Your task to perform on an android device: turn notification dots off Image 0: 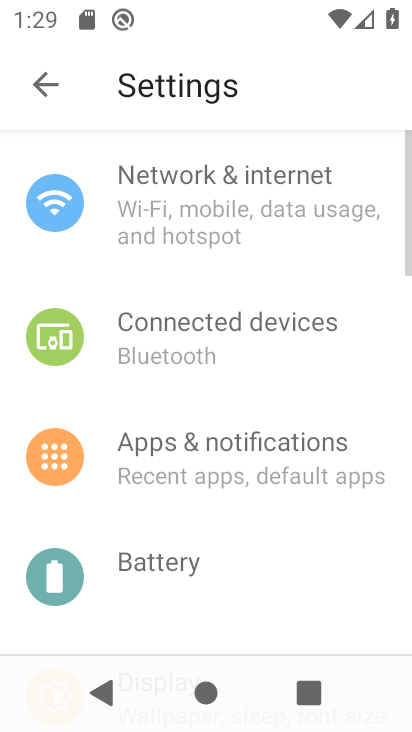
Step 0: press home button
Your task to perform on an android device: turn notification dots off Image 1: 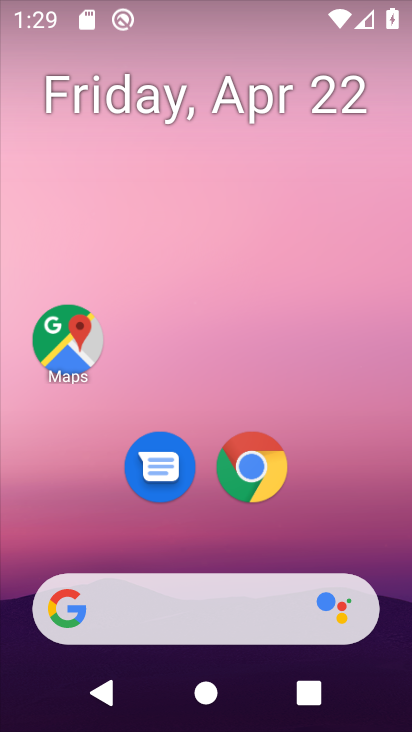
Step 1: drag from (341, 455) to (312, 173)
Your task to perform on an android device: turn notification dots off Image 2: 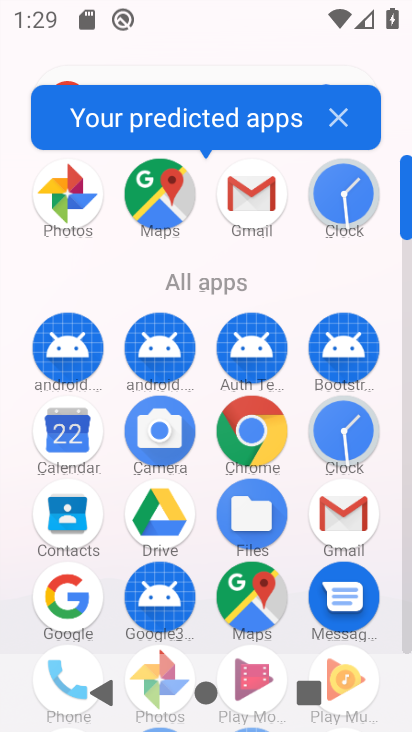
Step 2: drag from (308, 536) to (293, 214)
Your task to perform on an android device: turn notification dots off Image 3: 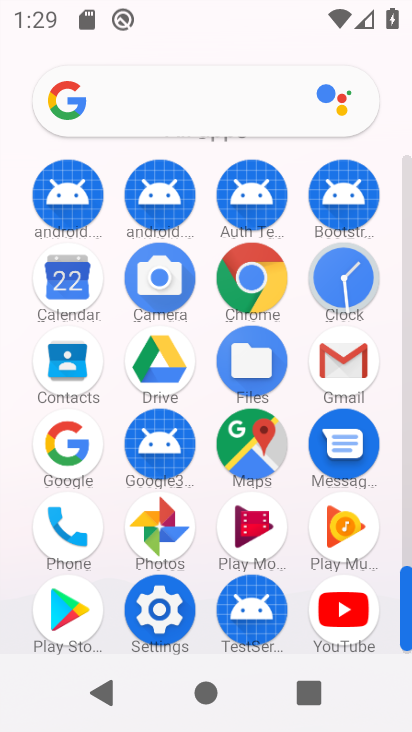
Step 3: click (171, 610)
Your task to perform on an android device: turn notification dots off Image 4: 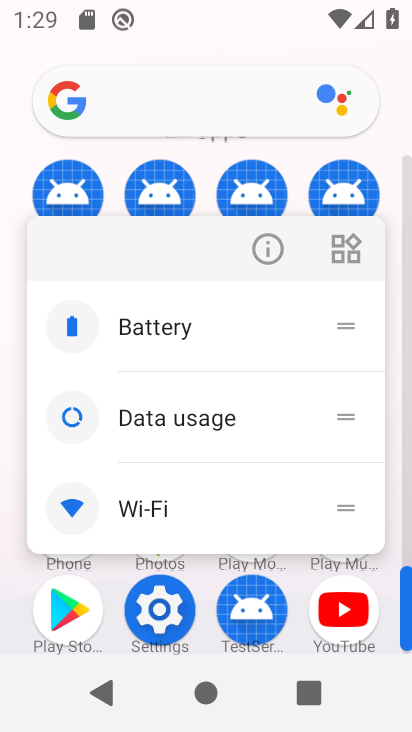
Step 4: click (169, 624)
Your task to perform on an android device: turn notification dots off Image 5: 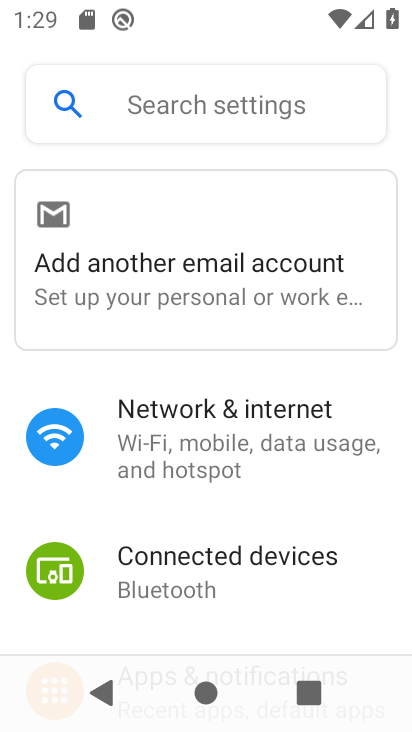
Step 5: drag from (253, 590) to (251, 294)
Your task to perform on an android device: turn notification dots off Image 6: 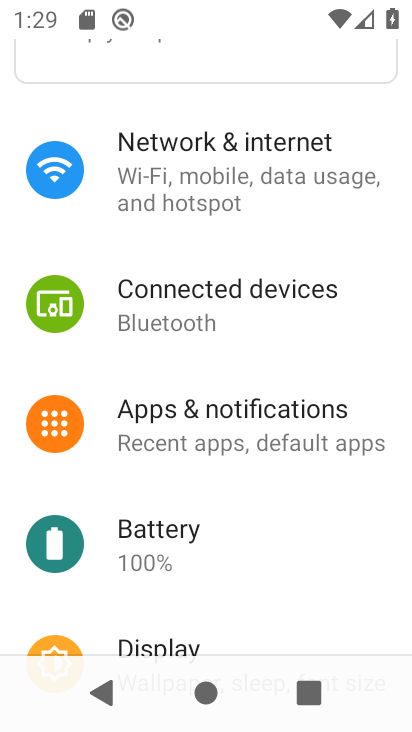
Step 6: click (267, 442)
Your task to perform on an android device: turn notification dots off Image 7: 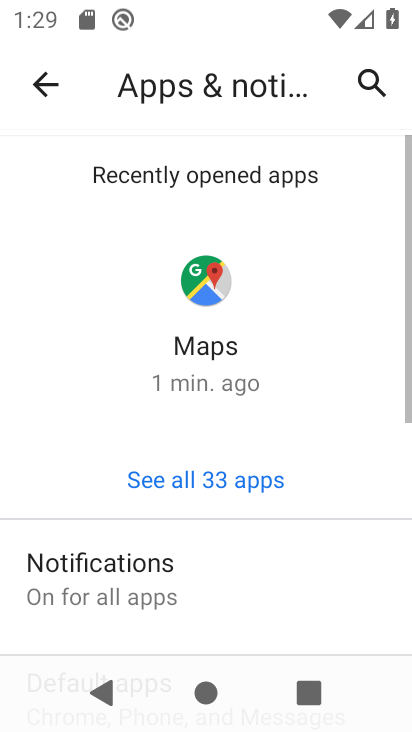
Step 7: drag from (259, 605) to (261, 328)
Your task to perform on an android device: turn notification dots off Image 8: 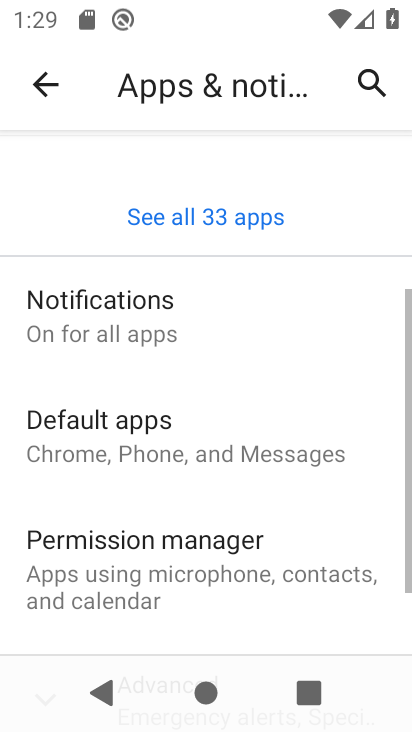
Step 8: drag from (266, 600) to (260, 338)
Your task to perform on an android device: turn notification dots off Image 9: 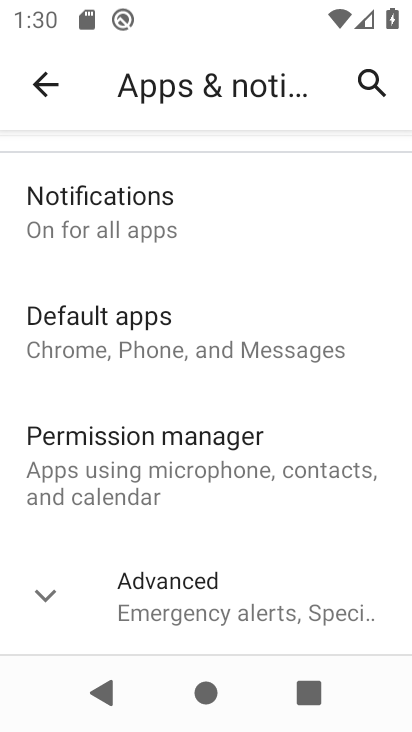
Step 9: click (157, 238)
Your task to perform on an android device: turn notification dots off Image 10: 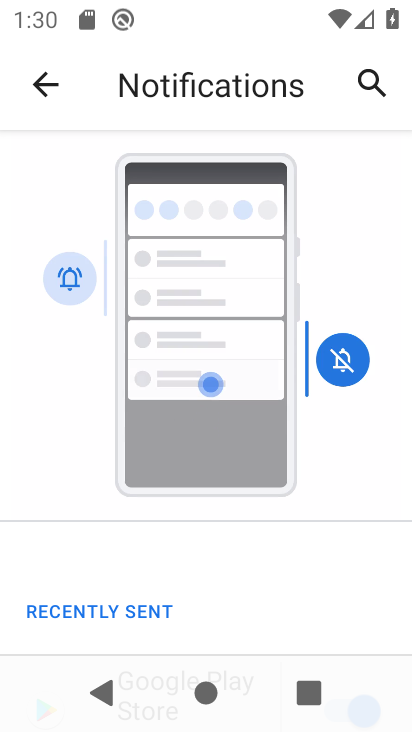
Step 10: drag from (226, 582) to (214, 202)
Your task to perform on an android device: turn notification dots off Image 11: 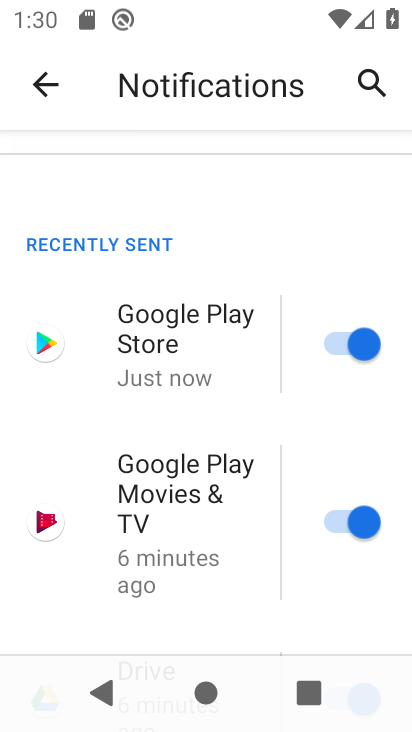
Step 11: drag from (225, 608) to (221, 338)
Your task to perform on an android device: turn notification dots off Image 12: 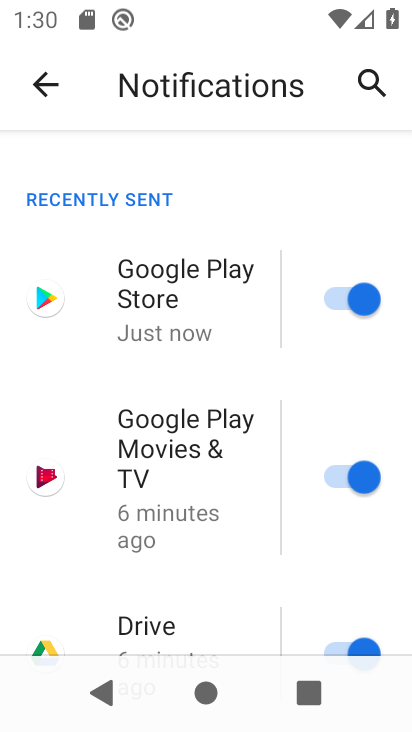
Step 12: drag from (194, 599) to (193, 233)
Your task to perform on an android device: turn notification dots off Image 13: 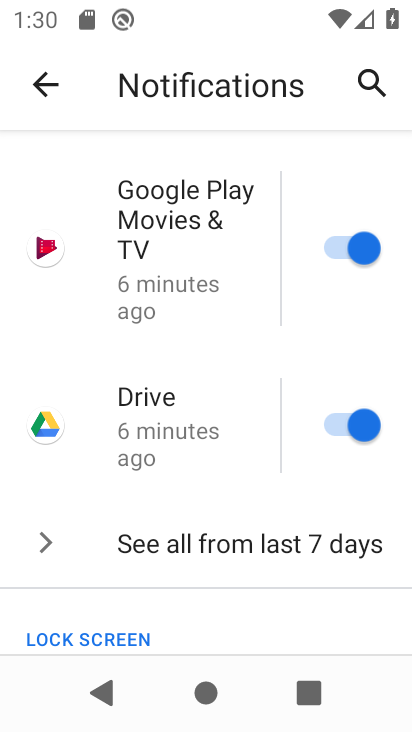
Step 13: drag from (188, 607) to (181, 212)
Your task to perform on an android device: turn notification dots off Image 14: 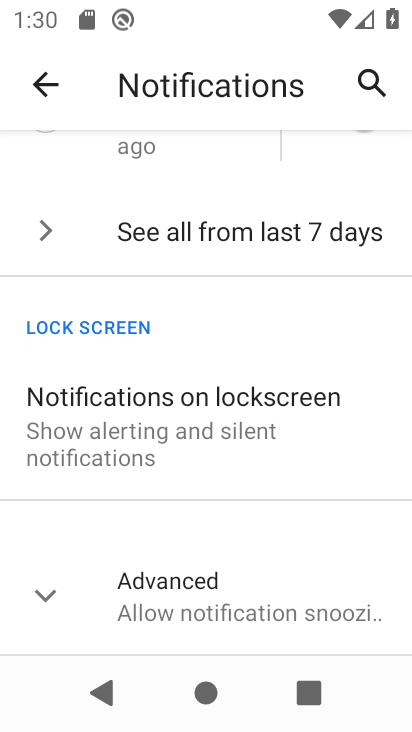
Step 14: click (50, 590)
Your task to perform on an android device: turn notification dots off Image 15: 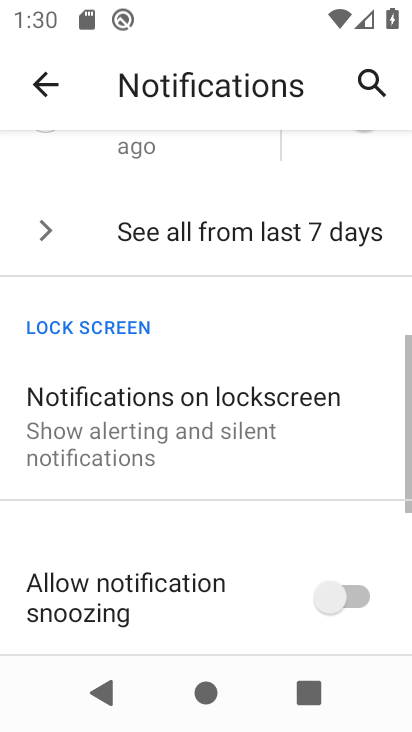
Step 15: drag from (208, 565) to (239, 214)
Your task to perform on an android device: turn notification dots off Image 16: 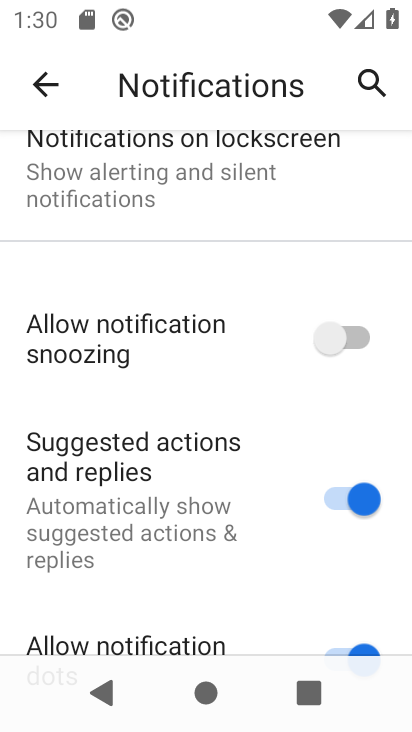
Step 16: drag from (203, 619) to (211, 220)
Your task to perform on an android device: turn notification dots off Image 17: 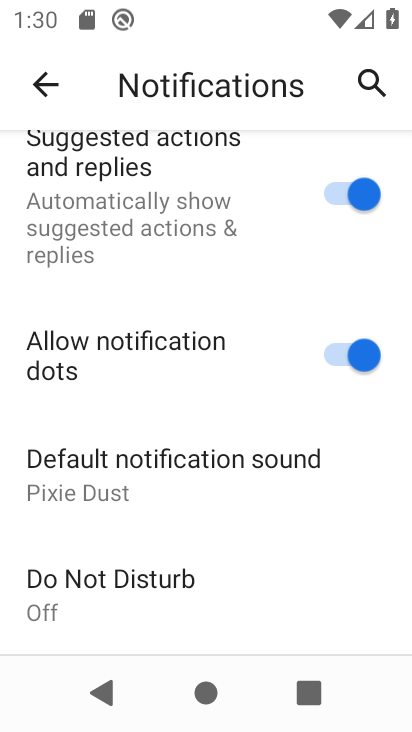
Step 17: click (367, 352)
Your task to perform on an android device: turn notification dots off Image 18: 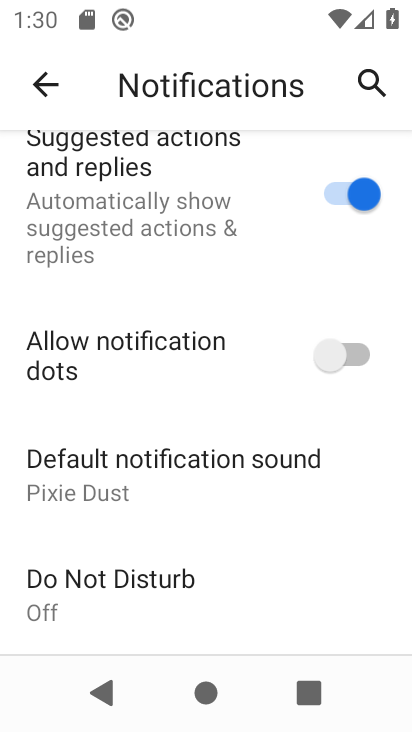
Step 18: task complete